Your task to perform on an android device: Go to network settings Image 0: 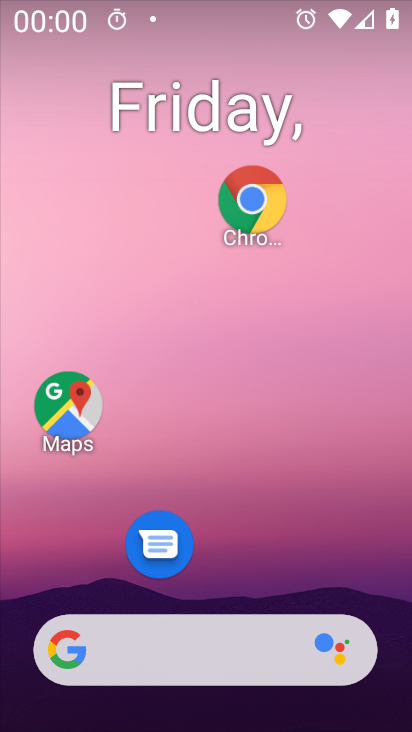
Step 0: drag from (253, 573) to (354, 73)
Your task to perform on an android device: Go to network settings Image 1: 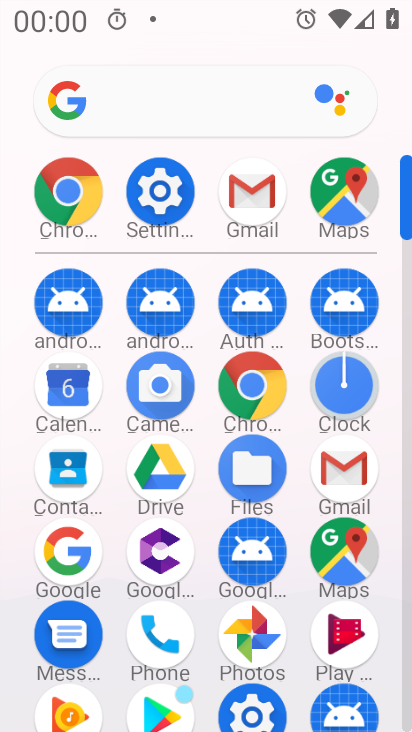
Step 1: click (155, 179)
Your task to perform on an android device: Go to network settings Image 2: 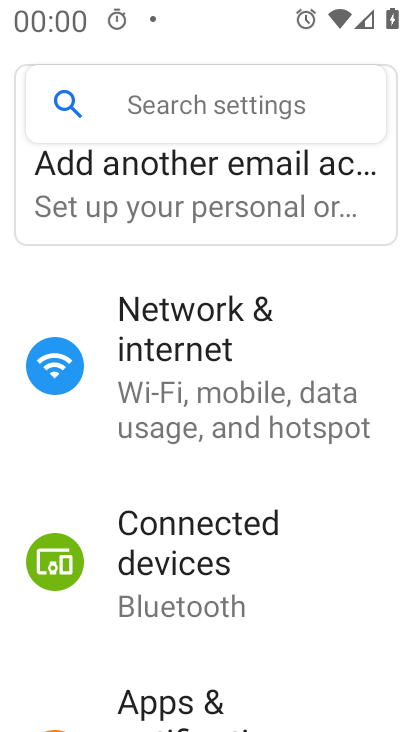
Step 2: click (210, 412)
Your task to perform on an android device: Go to network settings Image 3: 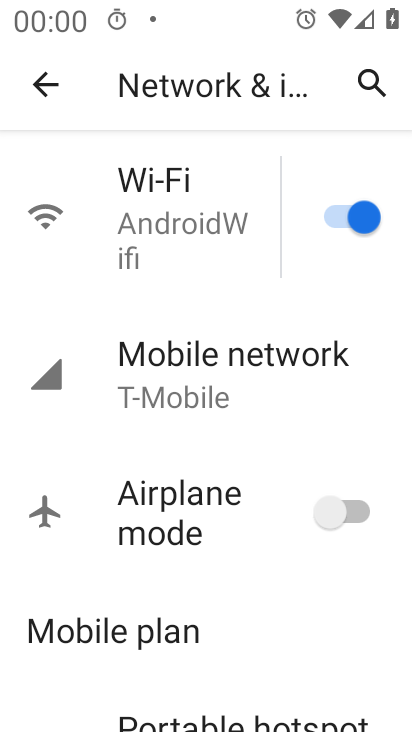
Step 3: click (291, 369)
Your task to perform on an android device: Go to network settings Image 4: 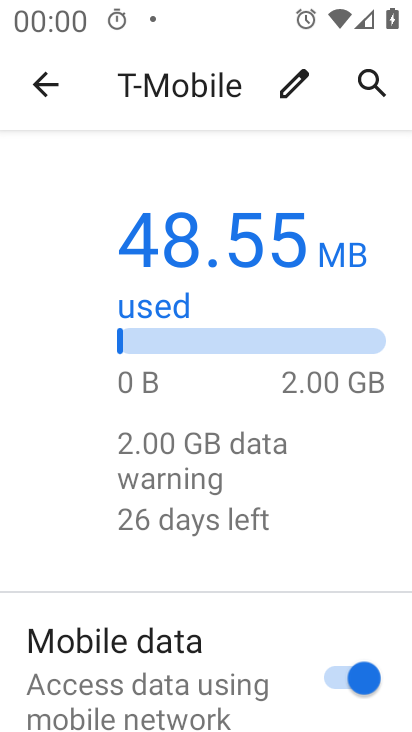
Step 4: task complete